Your task to perform on an android device: Go to Amazon Image 0: 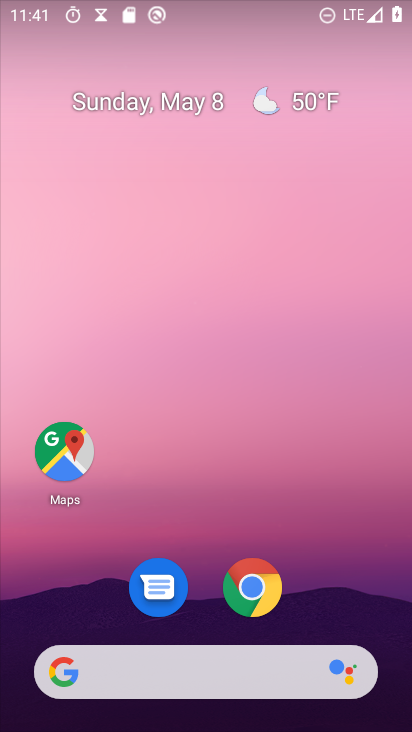
Step 0: click (238, 589)
Your task to perform on an android device: Go to Amazon Image 1: 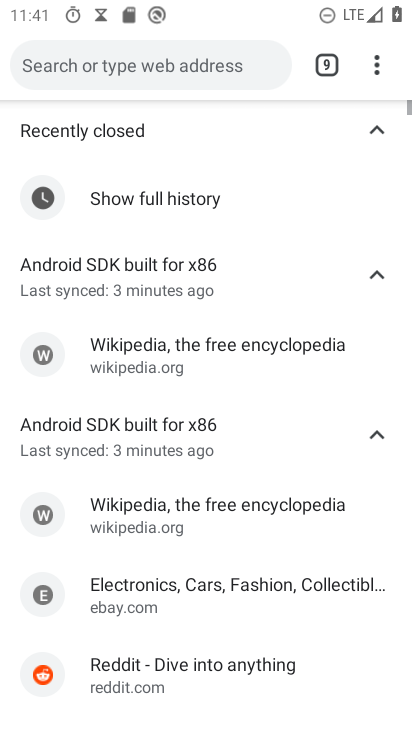
Step 1: click (223, 63)
Your task to perform on an android device: Go to Amazon Image 2: 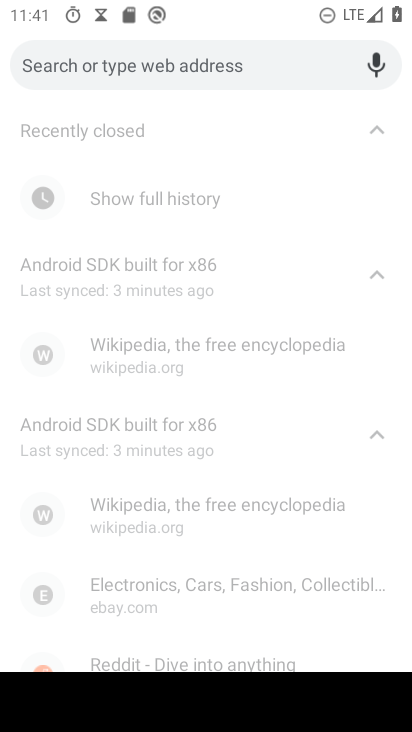
Step 2: type "amazon"
Your task to perform on an android device: Go to Amazon Image 3: 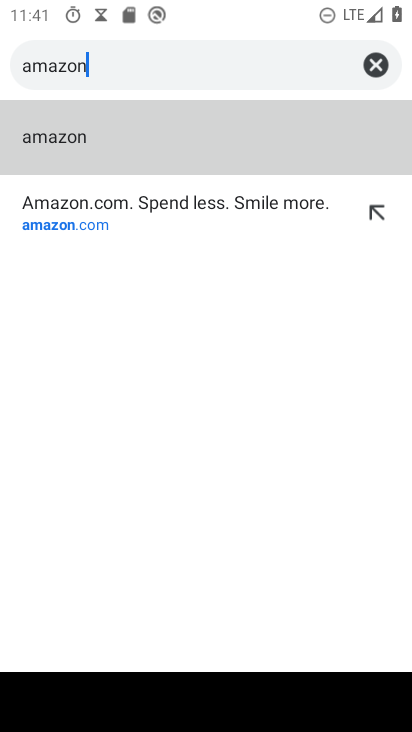
Step 3: click (126, 212)
Your task to perform on an android device: Go to Amazon Image 4: 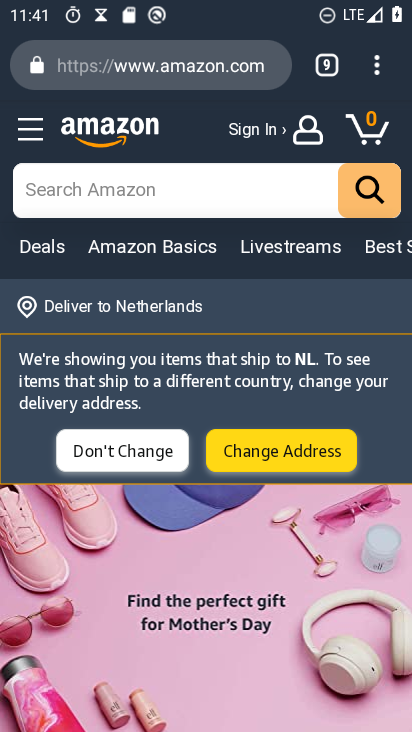
Step 4: task complete